Your task to perform on an android device: Open Google Chrome and open the bookmarks view Image 0: 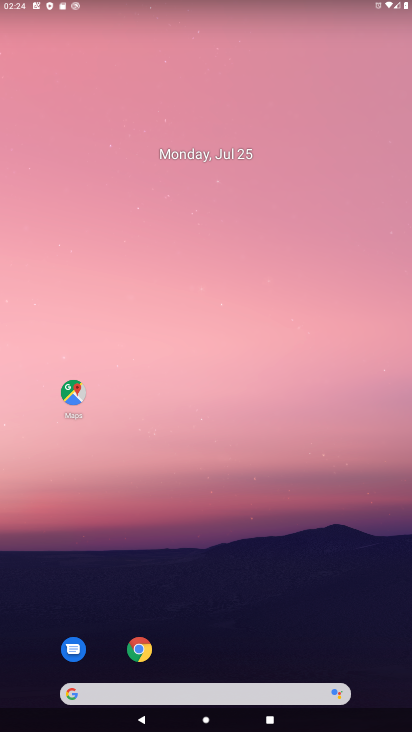
Step 0: click (140, 652)
Your task to perform on an android device: Open Google Chrome and open the bookmarks view Image 1: 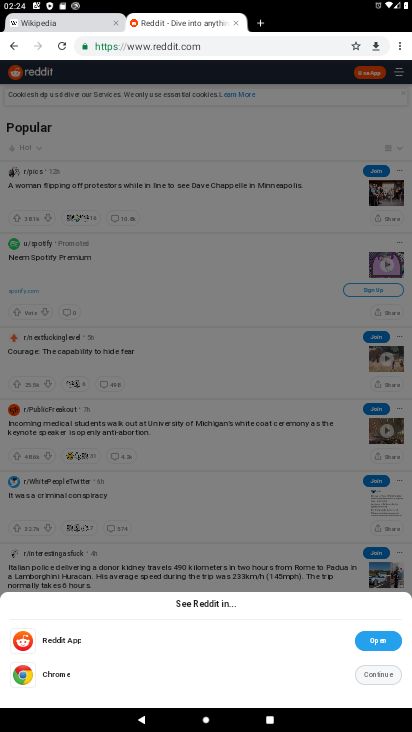
Step 1: click (397, 48)
Your task to perform on an android device: Open Google Chrome and open the bookmarks view Image 2: 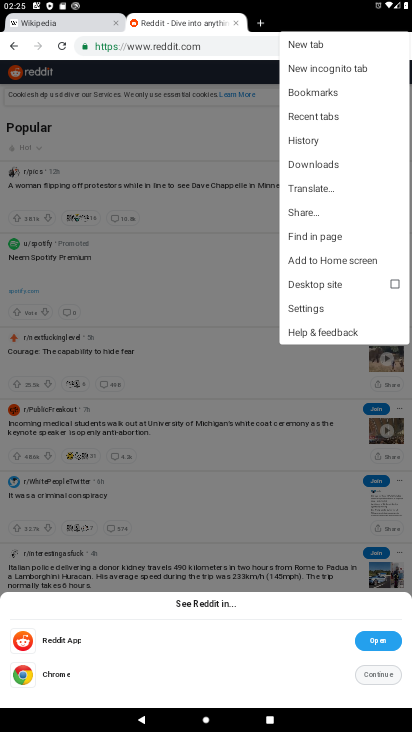
Step 2: click (308, 92)
Your task to perform on an android device: Open Google Chrome and open the bookmarks view Image 3: 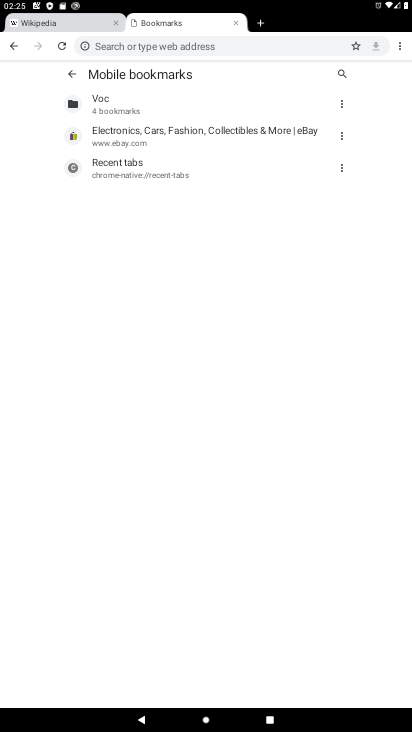
Step 3: task complete